Your task to perform on an android device: Open calendar and show me the third week of next month Image 0: 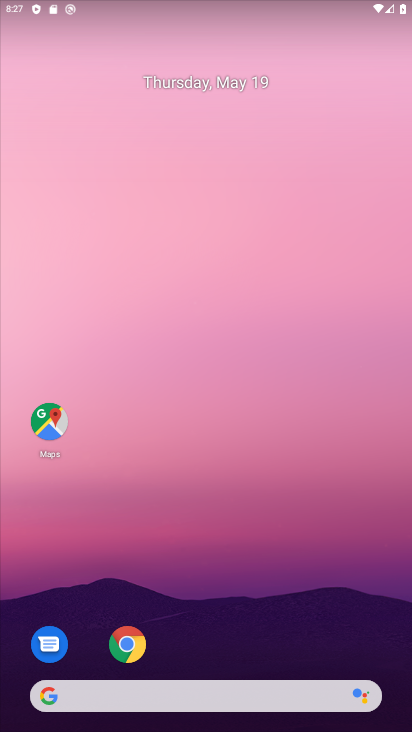
Step 0: drag from (218, 644) to (164, 274)
Your task to perform on an android device: Open calendar and show me the third week of next month Image 1: 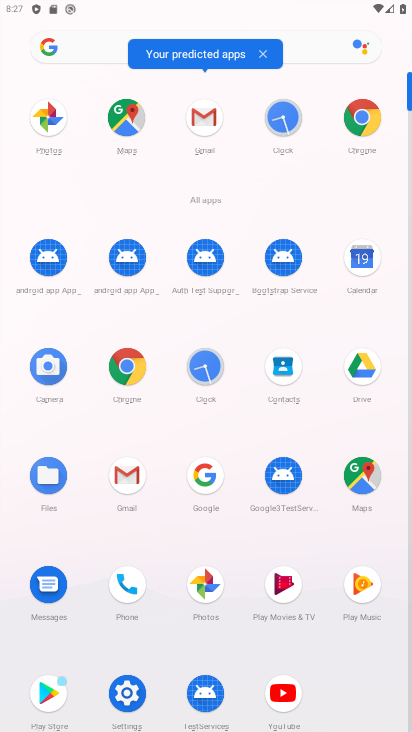
Step 1: click (353, 247)
Your task to perform on an android device: Open calendar and show me the third week of next month Image 2: 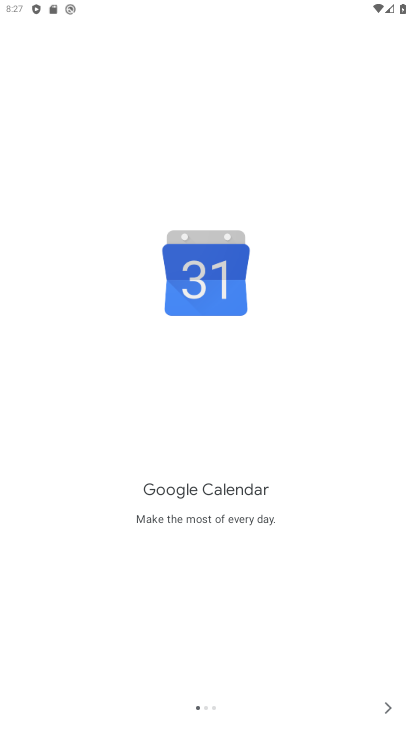
Step 2: click (384, 708)
Your task to perform on an android device: Open calendar and show me the third week of next month Image 3: 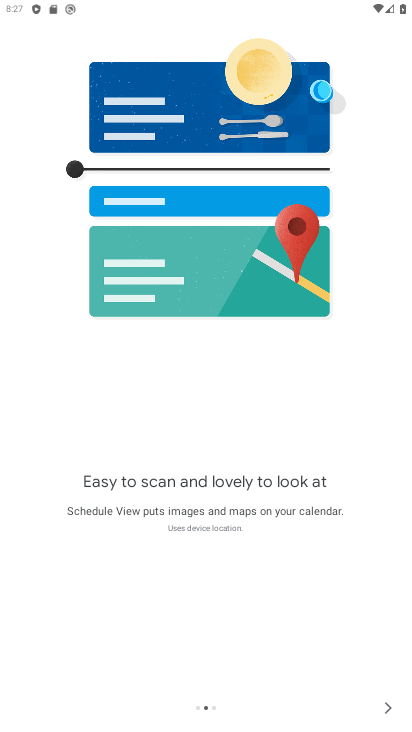
Step 3: click (384, 708)
Your task to perform on an android device: Open calendar and show me the third week of next month Image 4: 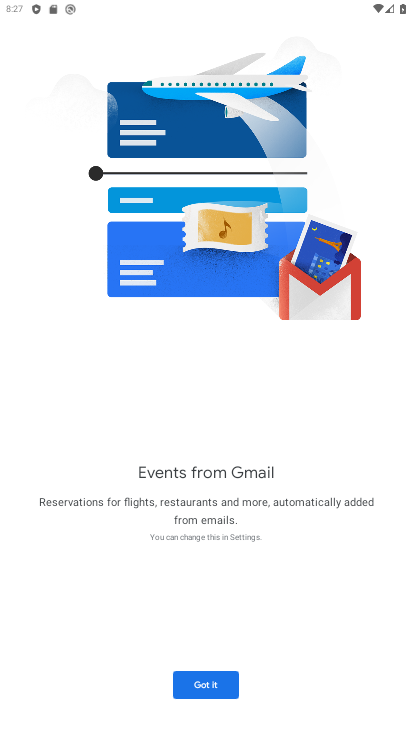
Step 4: click (384, 708)
Your task to perform on an android device: Open calendar and show me the third week of next month Image 5: 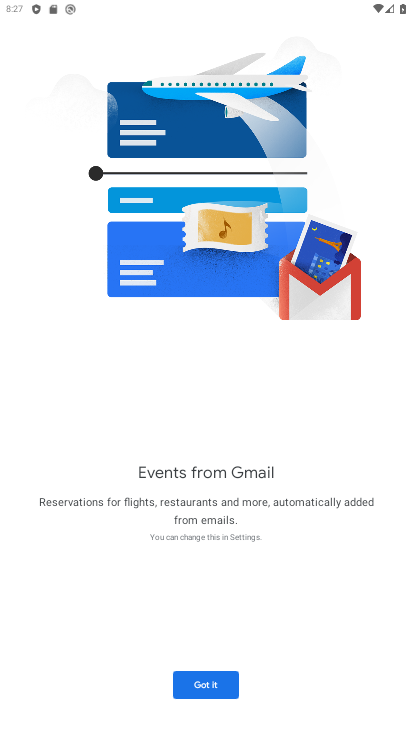
Step 5: click (218, 689)
Your task to perform on an android device: Open calendar and show me the third week of next month Image 6: 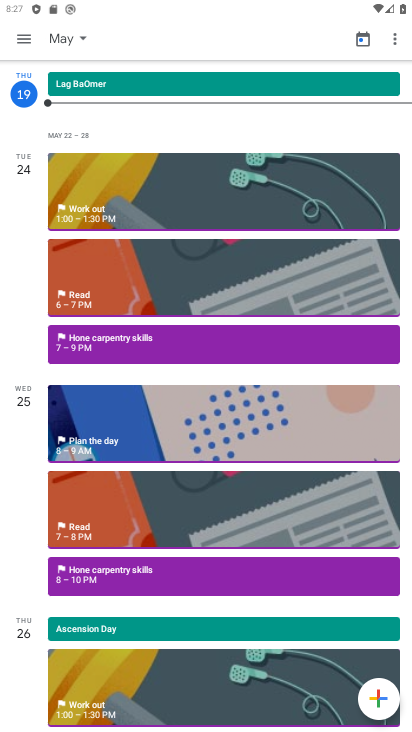
Step 6: click (218, 689)
Your task to perform on an android device: Open calendar and show me the third week of next month Image 7: 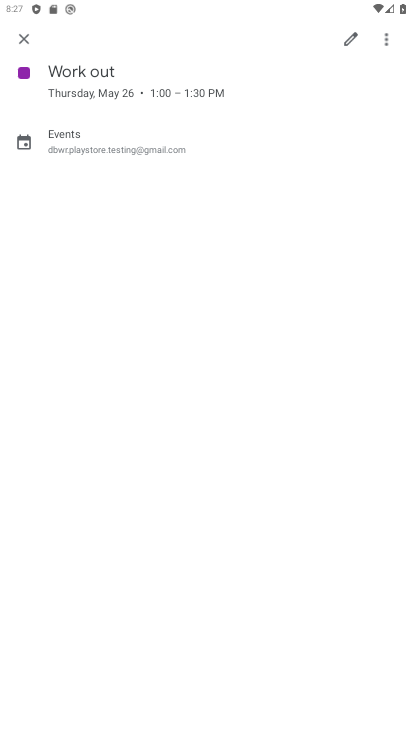
Step 7: click (23, 35)
Your task to perform on an android device: Open calendar and show me the third week of next month Image 8: 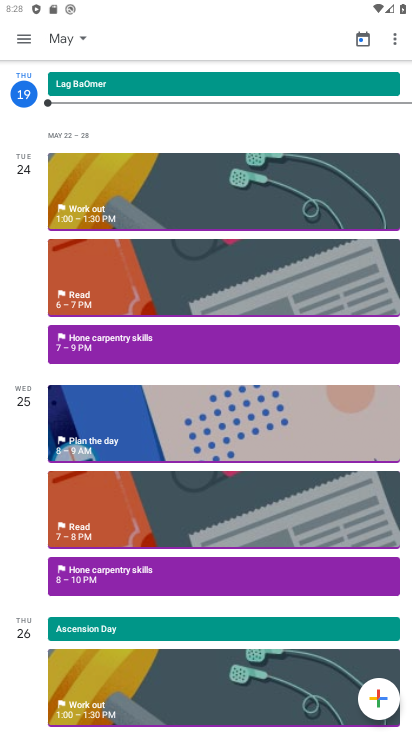
Step 8: click (23, 35)
Your task to perform on an android device: Open calendar and show me the third week of next month Image 9: 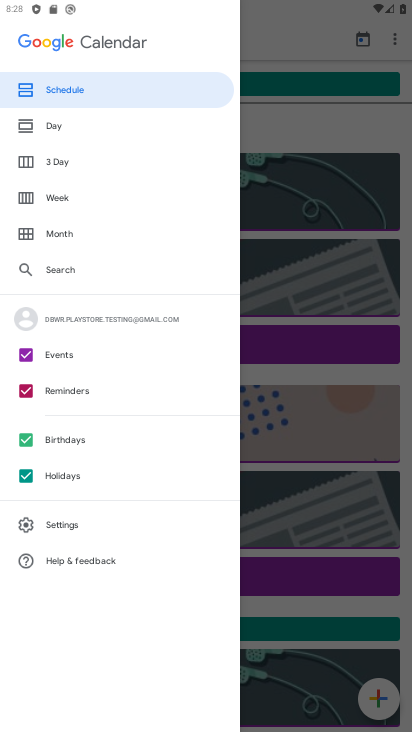
Step 9: click (88, 204)
Your task to perform on an android device: Open calendar and show me the third week of next month Image 10: 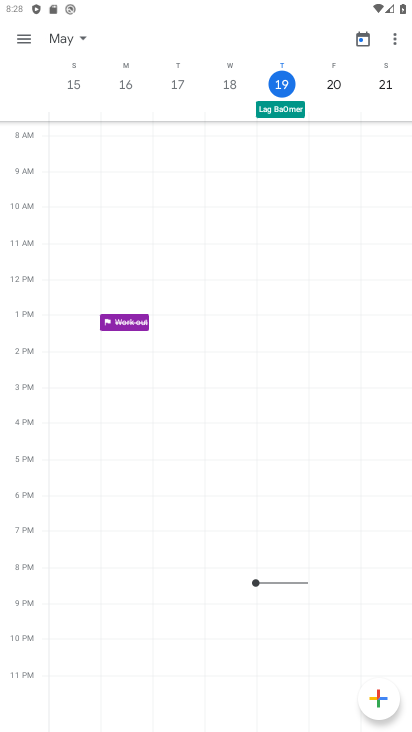
Step 10: click (66, 38)
Your task to perform on an android device: Open calendar and show me the third week of next month Image 11: 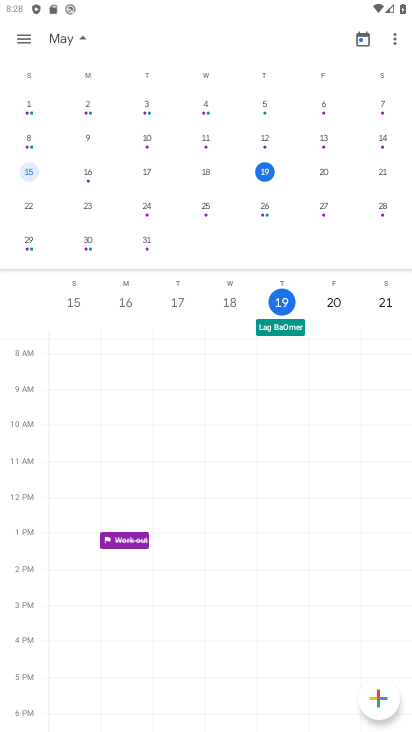
Step 11: drag from (395, 187) to (3, 189)
Your task to perform on an android device: Open calendar and show me the third week of next month Image 12: 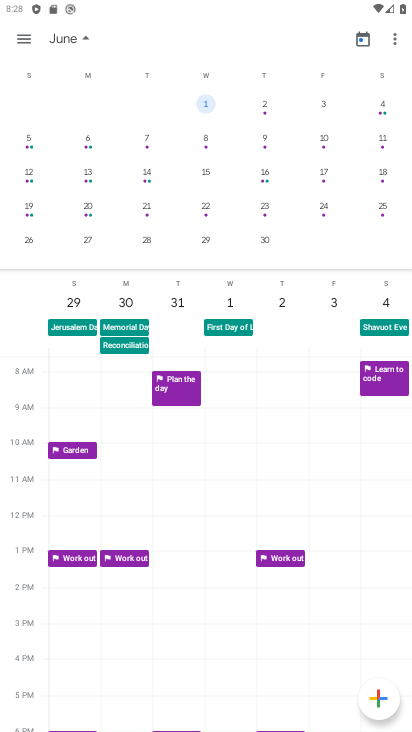
Step 12: click (207, 213)
Your task to perform on an android device: Open calendar and show me the third week of next month Image 13: 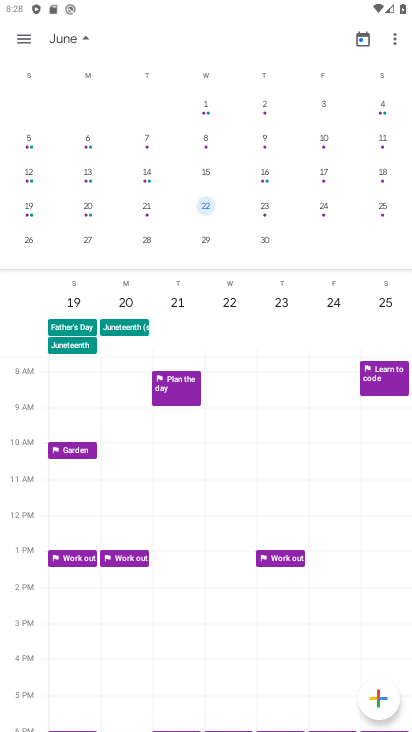
Step 13: task complete